Your task to perform on an android device: Search for seafood restaurants on Google Maps Image 0: 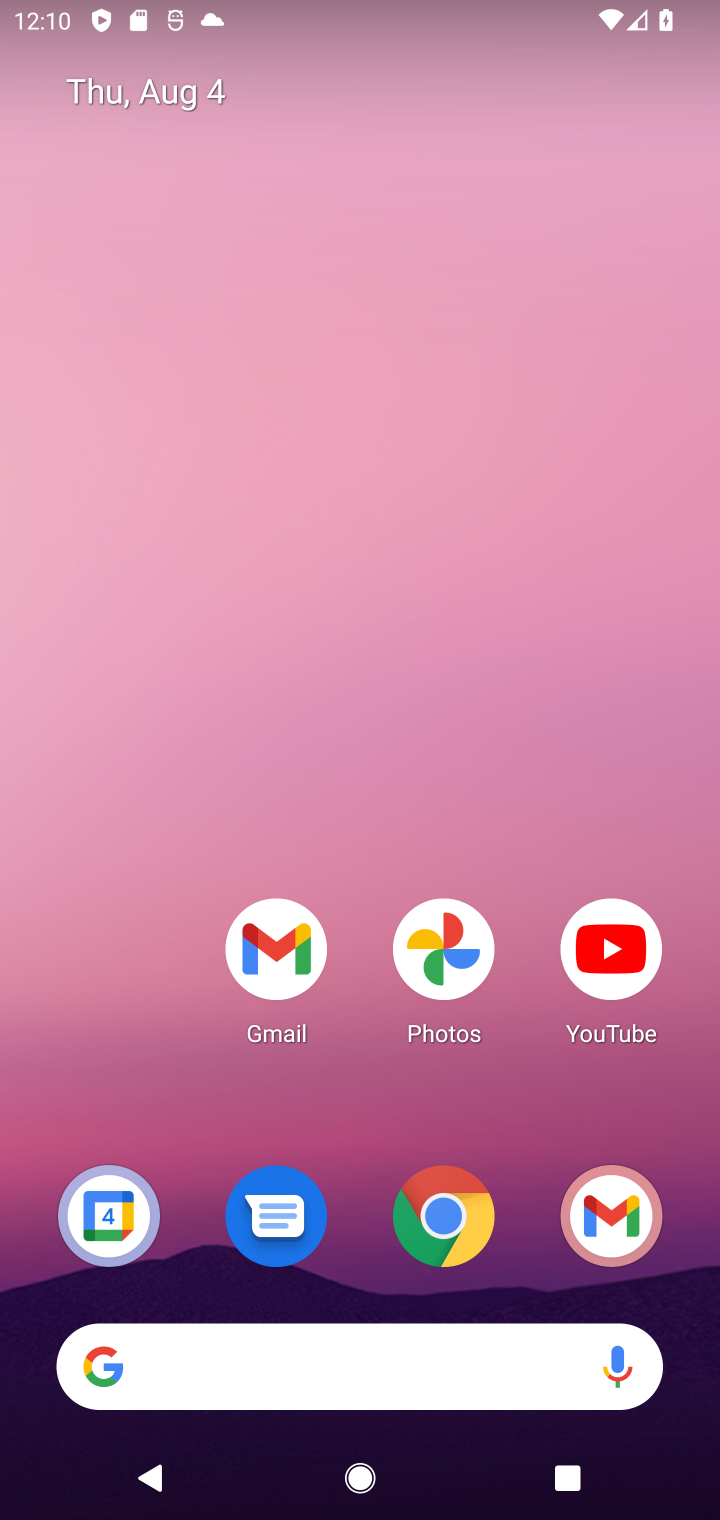
Step 0: drag from (267, 1387) to (716, 164)
Your task to perform on an android device: Search for seafood restaurants on Google Maps Image 1: 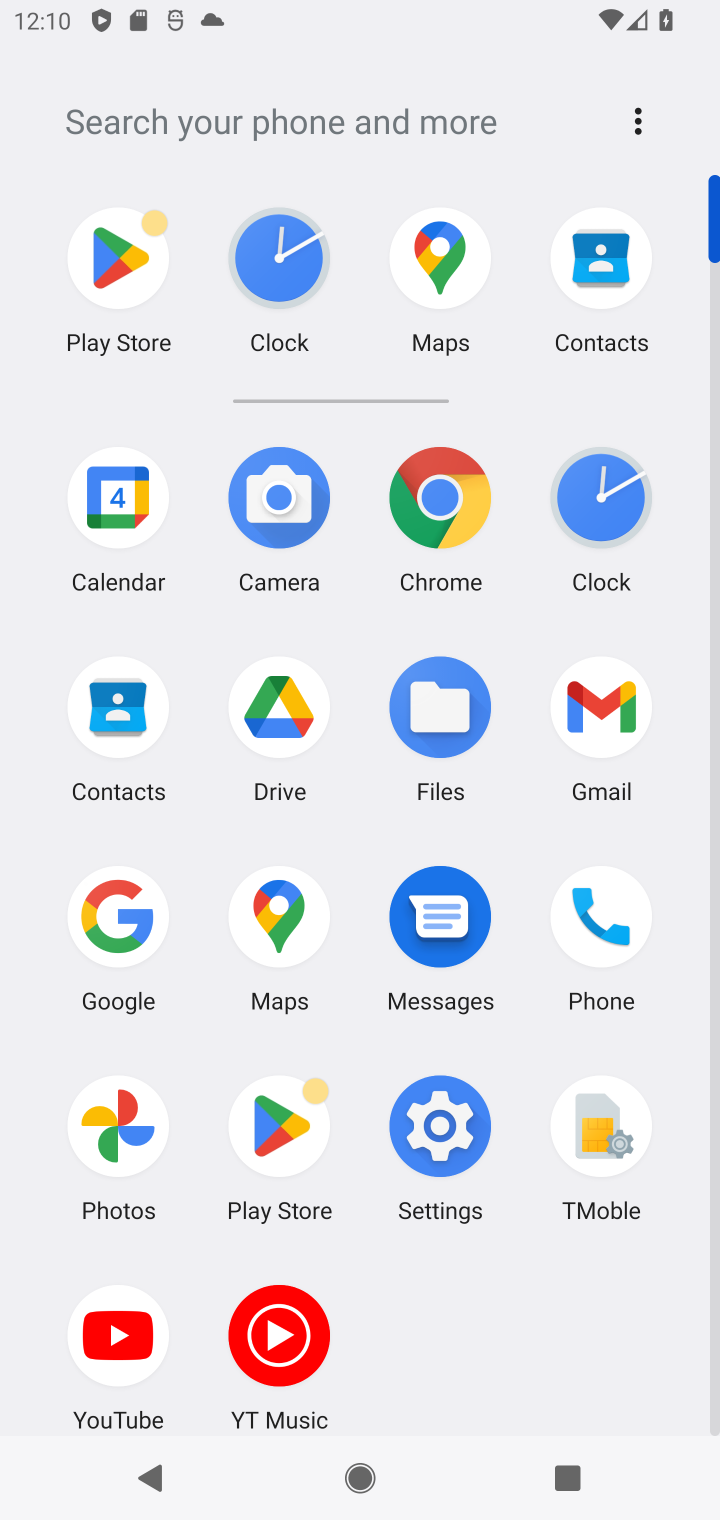
Step 1: click (439, 243)
Your task to perform on an android device: Search for seafood restaurants on Google Maps Image 2: 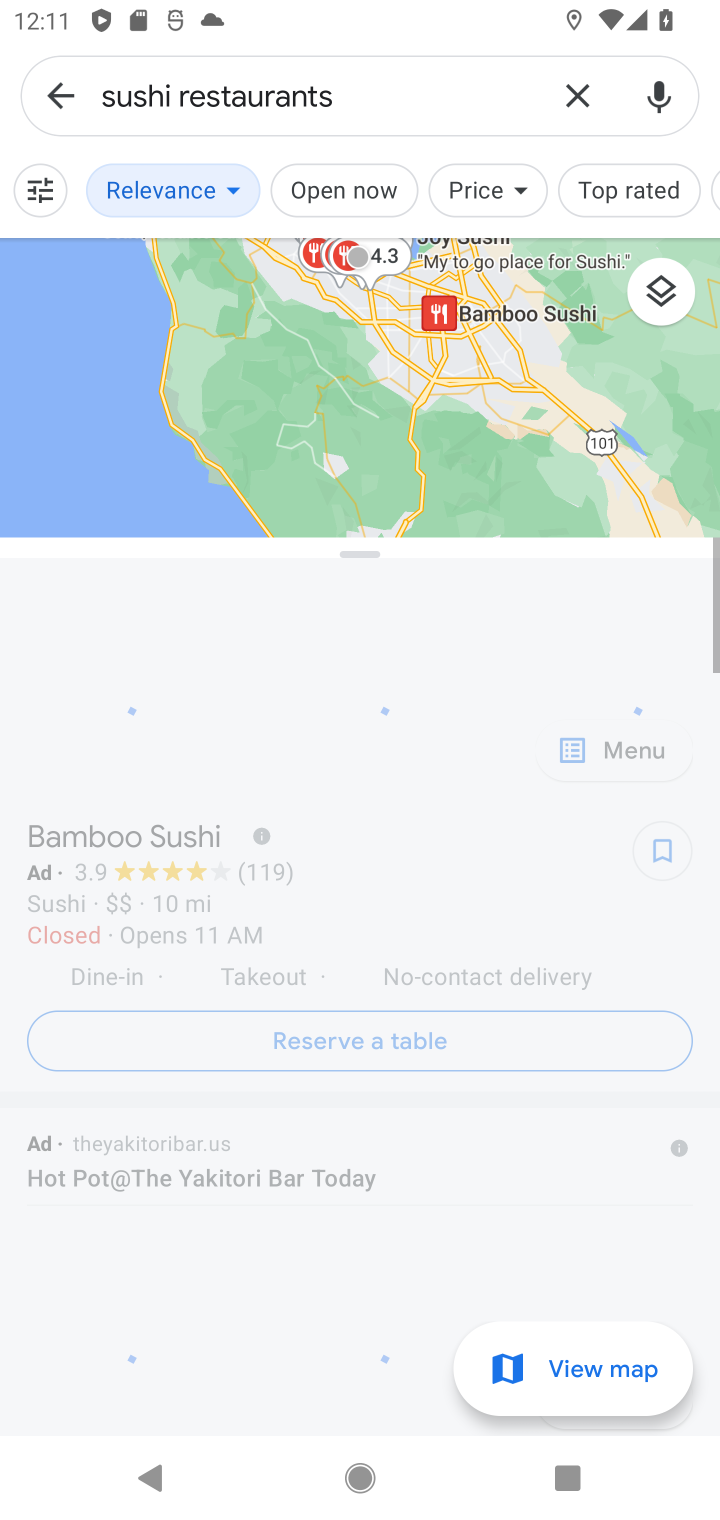
Step 2: click (562, 109)
Your task to perform on an android device: Search for seafood restaurants on Google Maps Image 3: 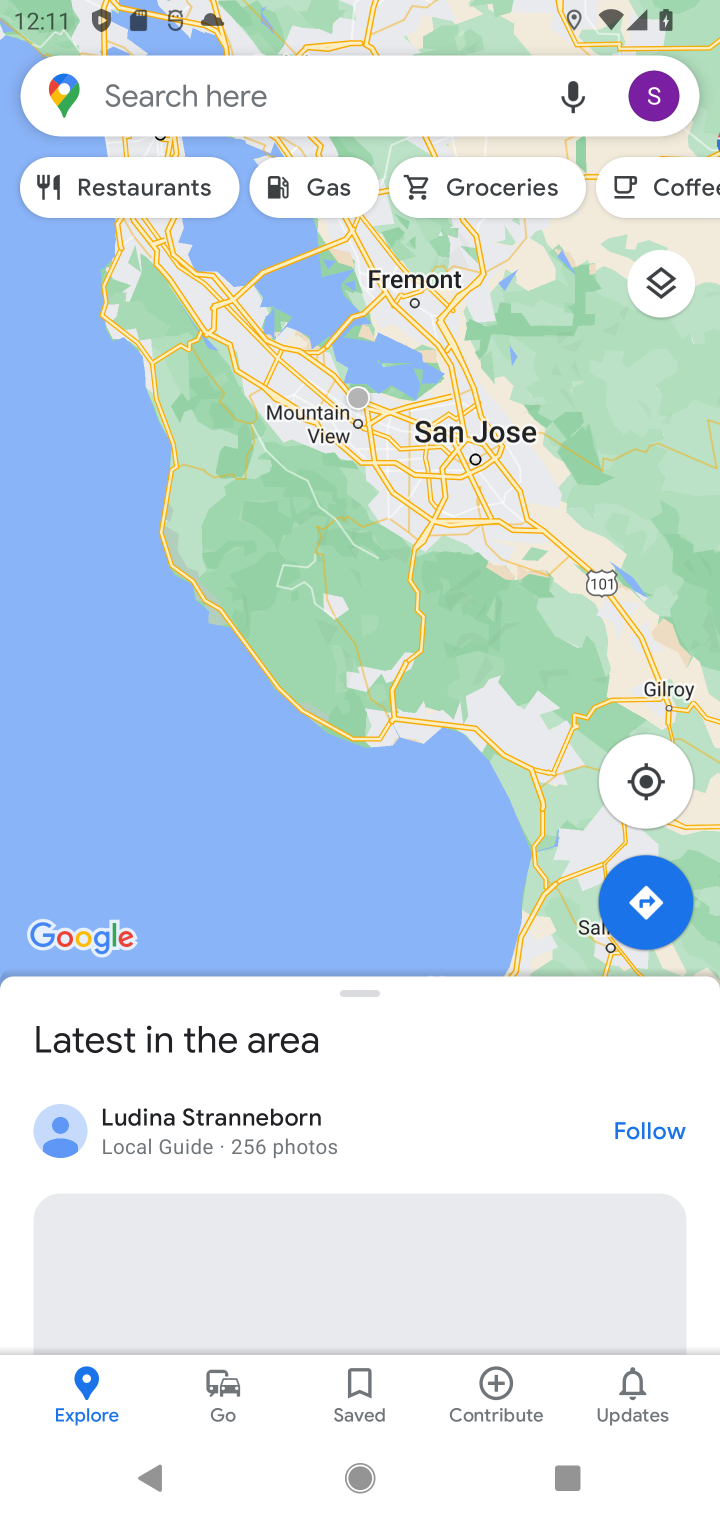
Step 3: click (467, 106)
Your task to perform on an android device: Search for seafood restaurants on Google Maps Image 4: 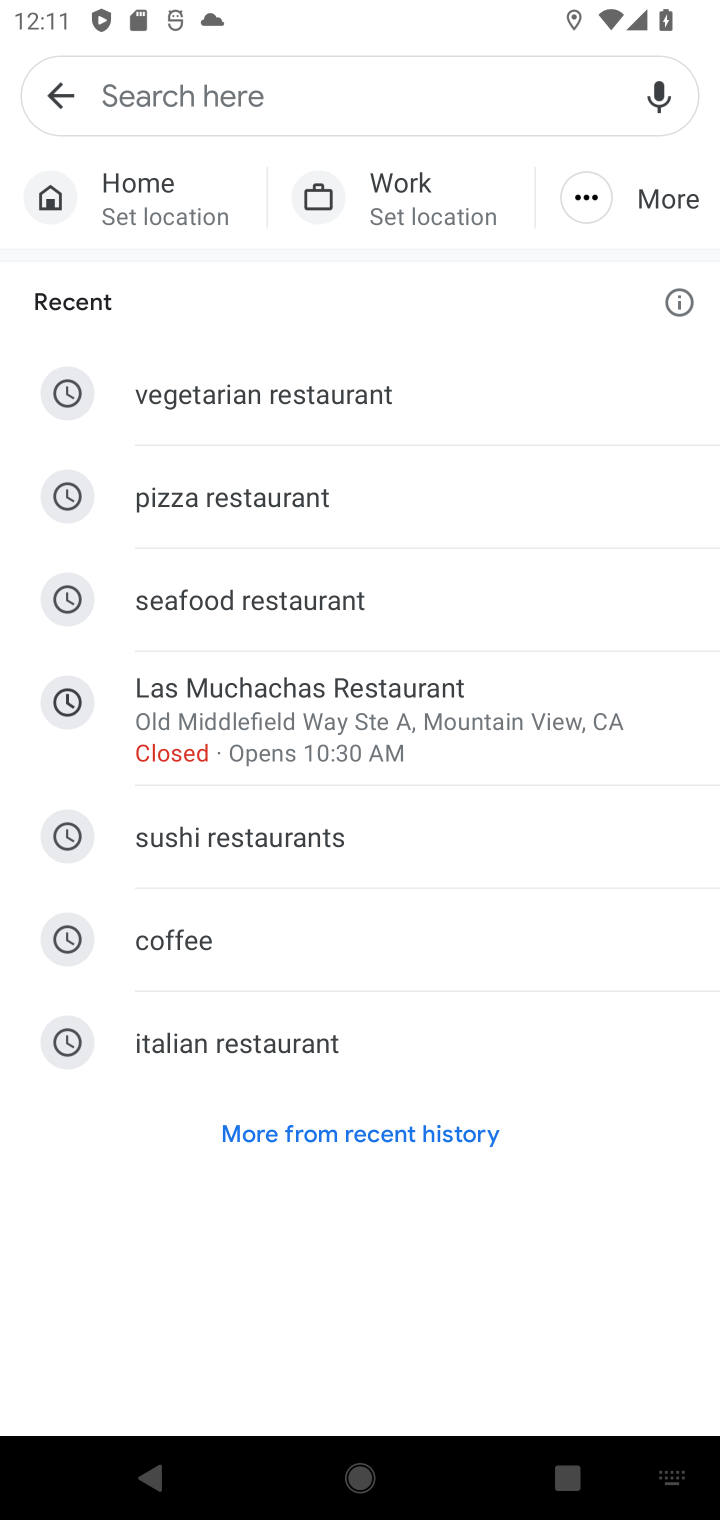
Step 4: type "seafood restaurants"
Your task to perform on an android device: Search for seafood restaurants on Google Maps Image 5: 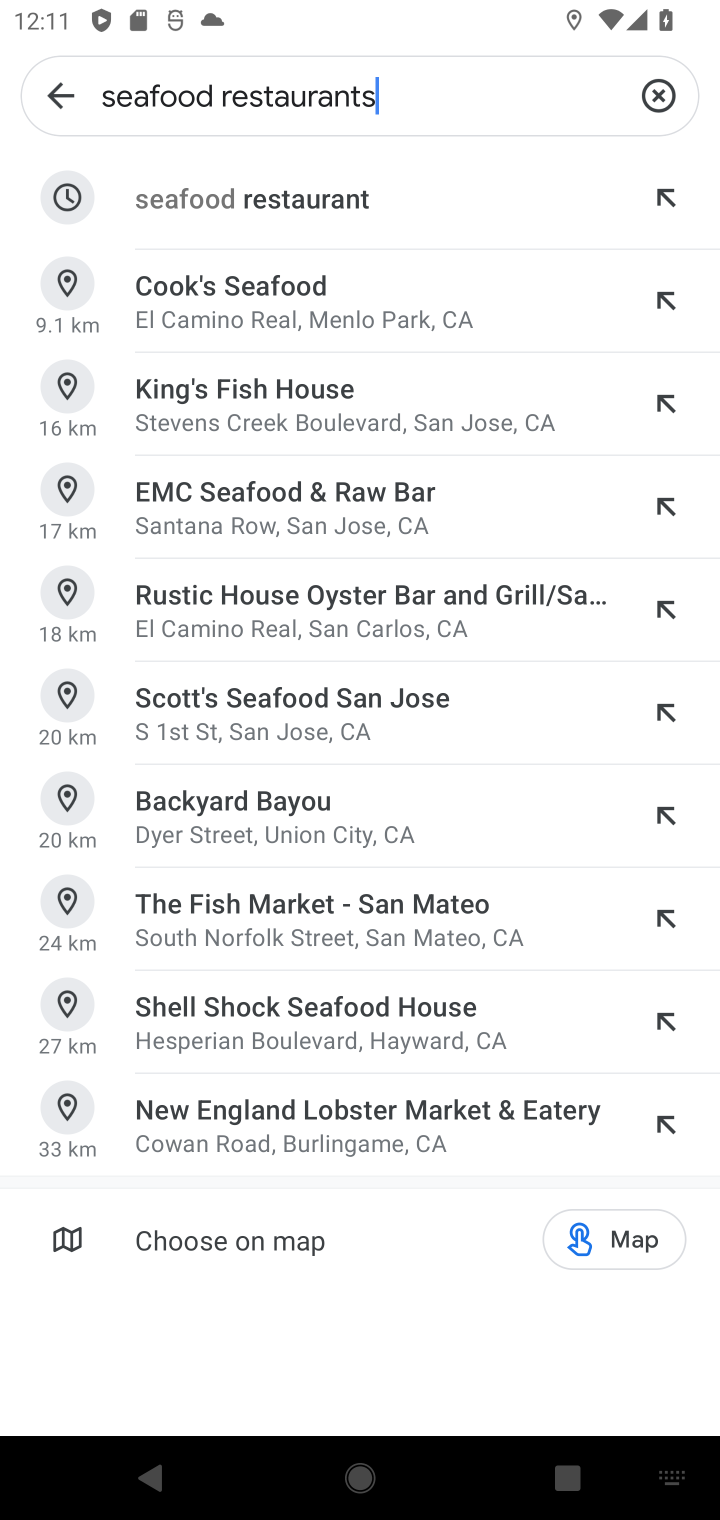
Step 5: click (254, 207)
Your task to perform on an android device: Search for seafood restaurants on Google Maps Image 6: 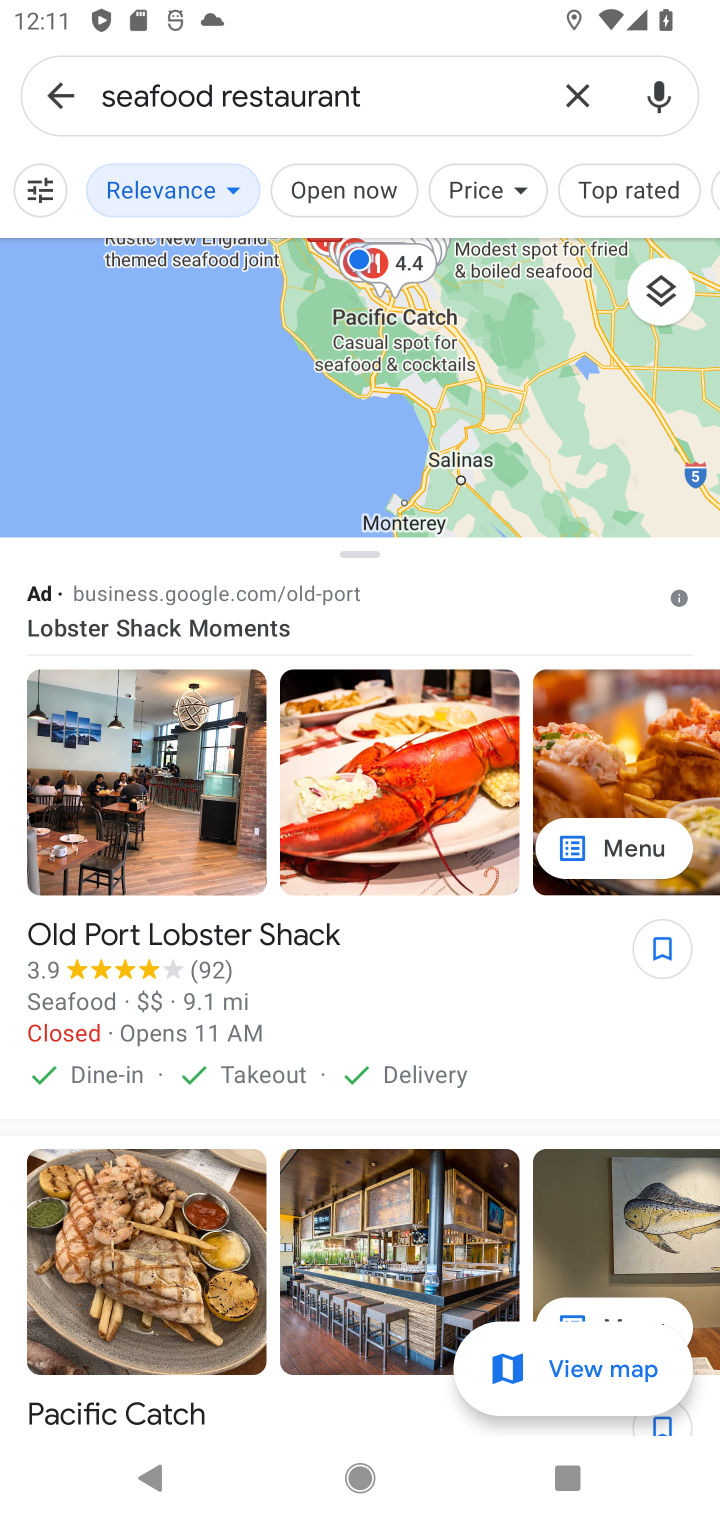
Step 6: task complete